Your task to perform on an android device: Search for the best selling coffee table on Crate & Barrel Image 0: 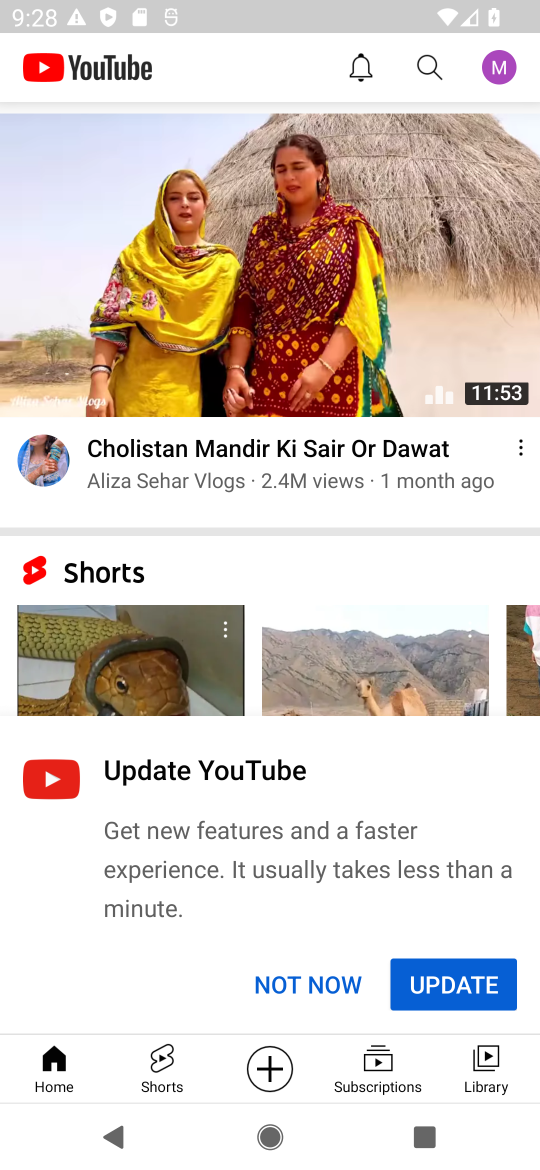
Step 0: press home button
Your task to perform on an android device: Search for the best selling coffee table on Crate & Barrel Image 1: 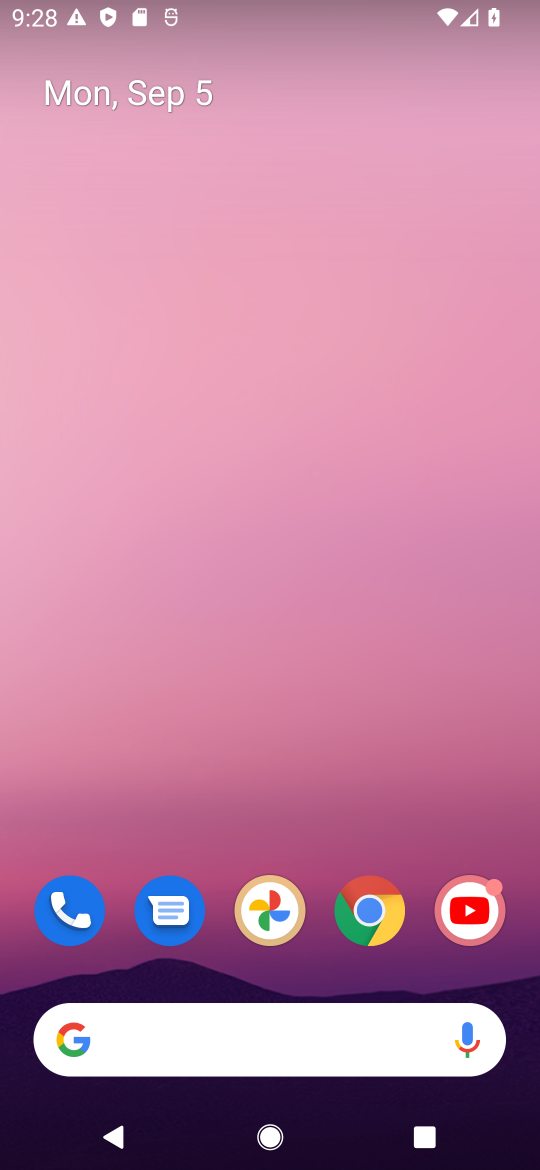
Step 1: click (398, 929)
Your task to perform on an android device: Search for the best selling coffee table on Crate & Barrel Image 2: 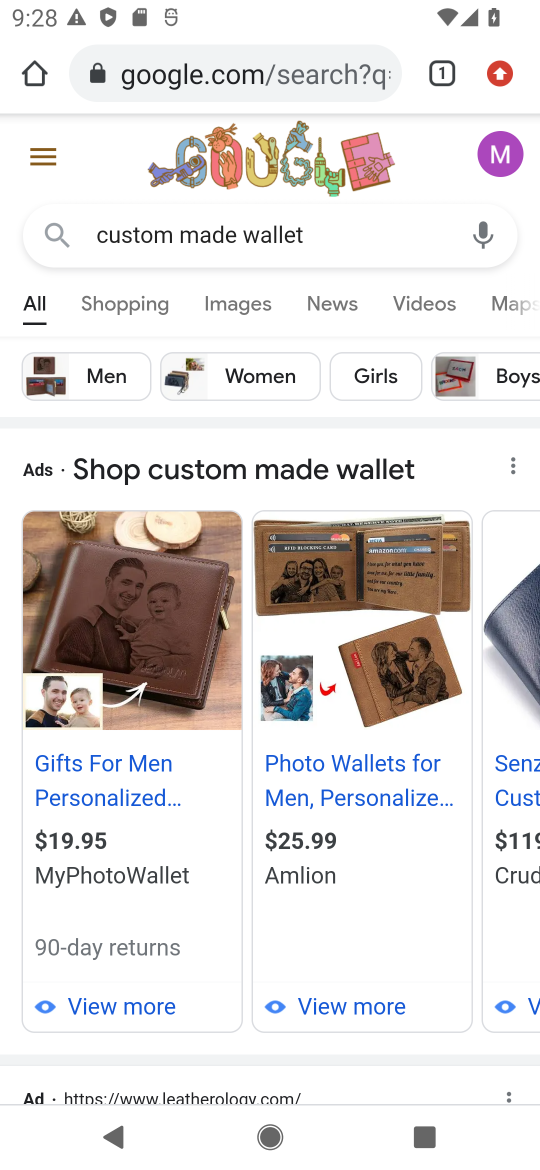
Step 2: click (322, 63)
Your task to perform on an android device: Search for the best selling coffee table on Crate & Barrel Image 3: 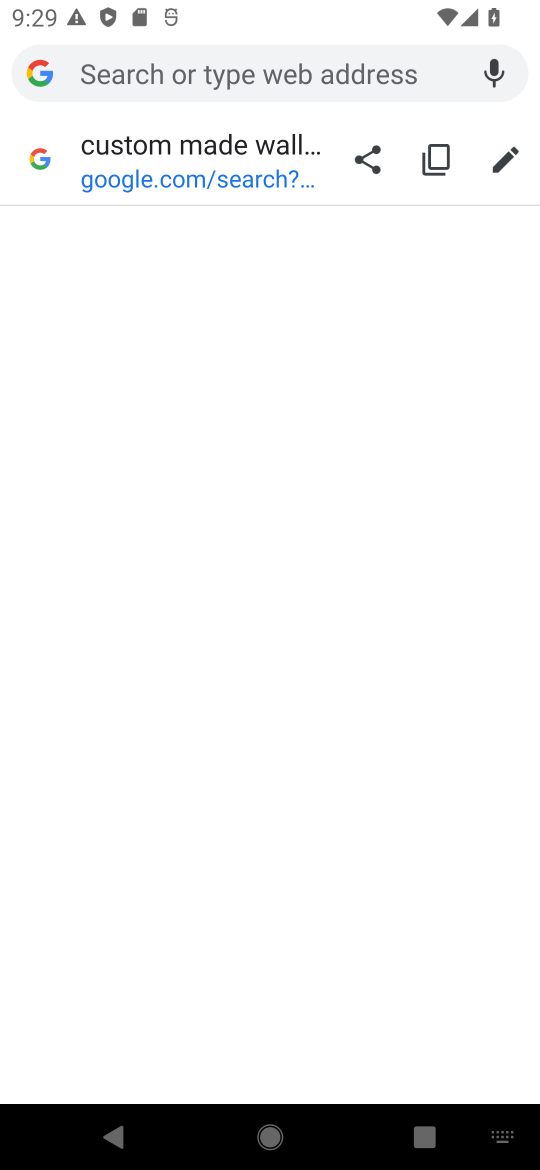
Step 3: type "crate and barrel"
Your task to perform on an android device: Search for the best selling coffee table on Crate & Barrel Image 4: 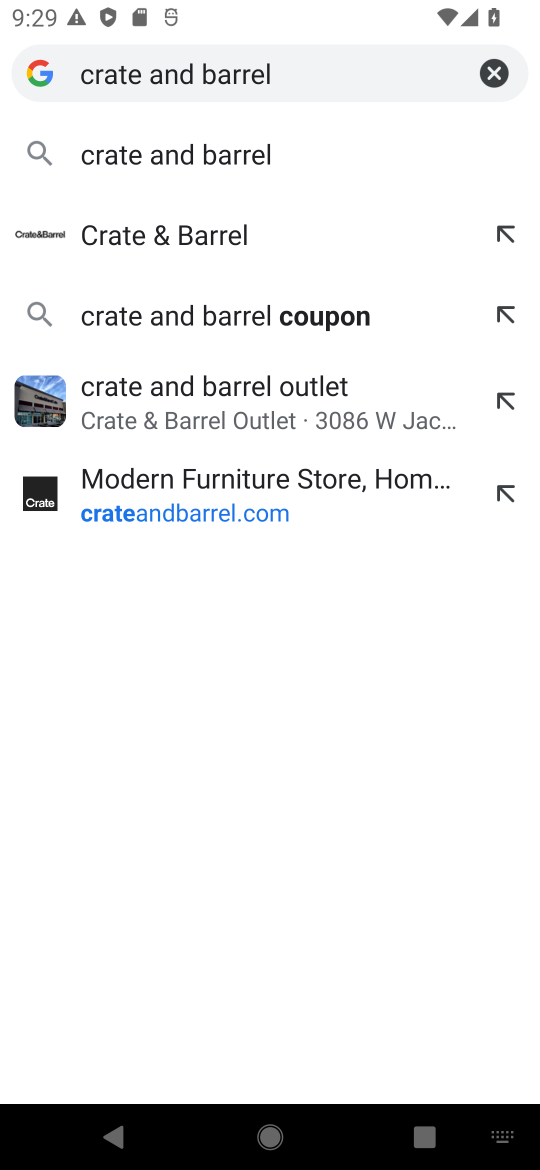
Step 4: click (272, 139)
Your task to perform on an android device: Search for the best selling coffee table on Crate & Barrel Image 5: 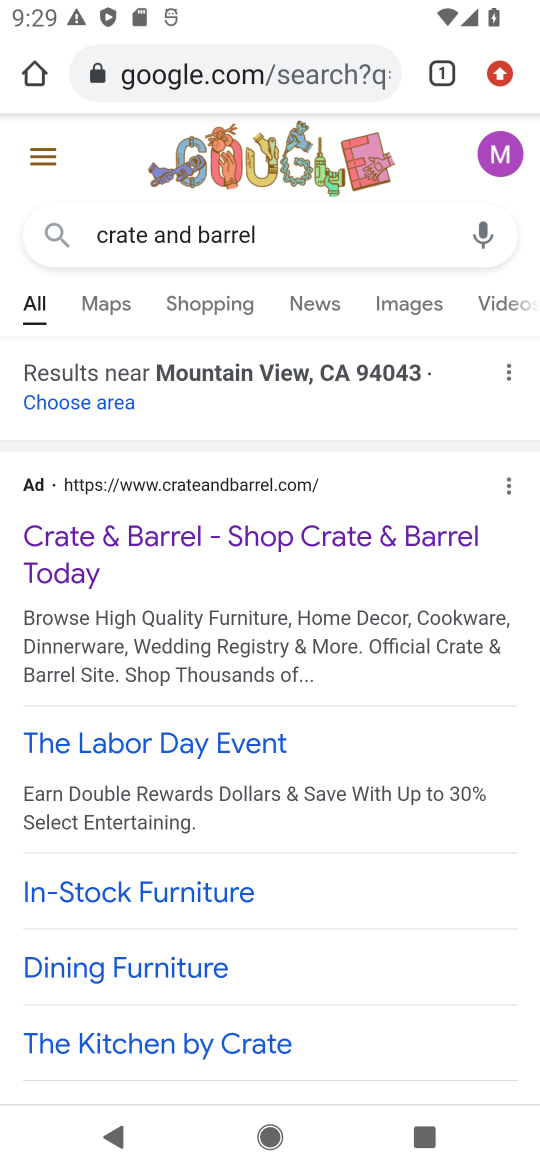
Step 5: click (306, 562)
Your task to perform on an android device: Search for the best selling coffee table on Crate & Barrel Image 6: 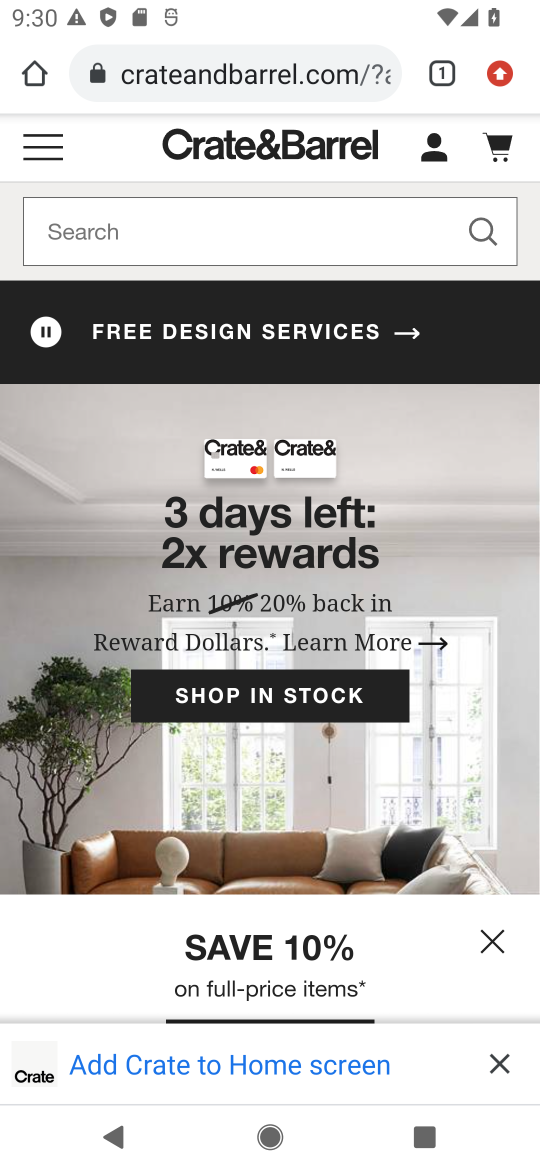
Step 6: click (313, 229)
Your task to perform on an android device: Search for the best selling coffee table on Crate & Barrel Image 7: 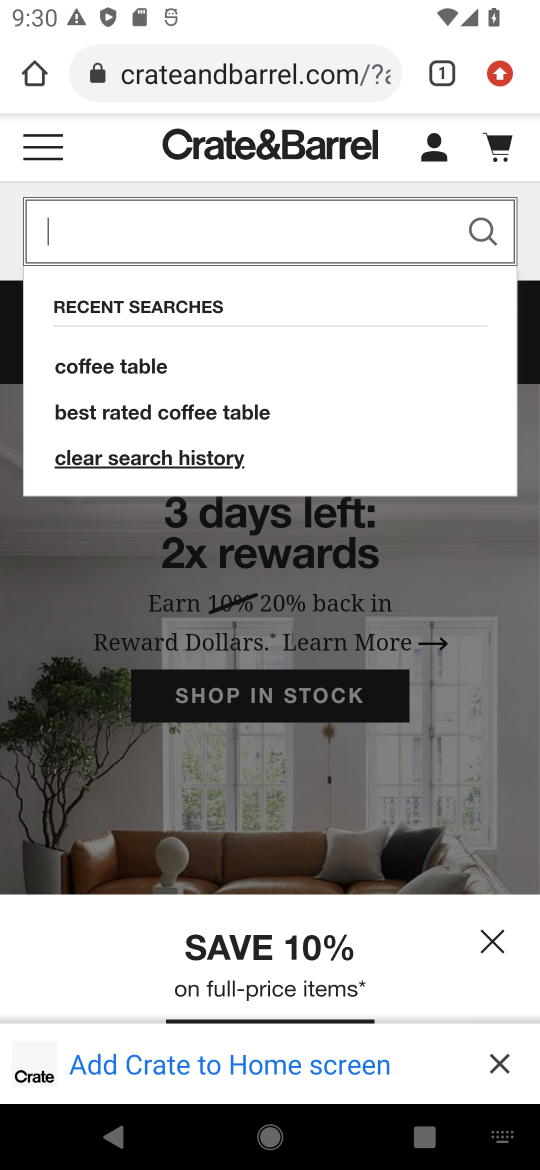
Step 7: click (272, 236)
Your task to perform on an android device: Search for the best selling coffee table on Crate & Barrel Image 8: 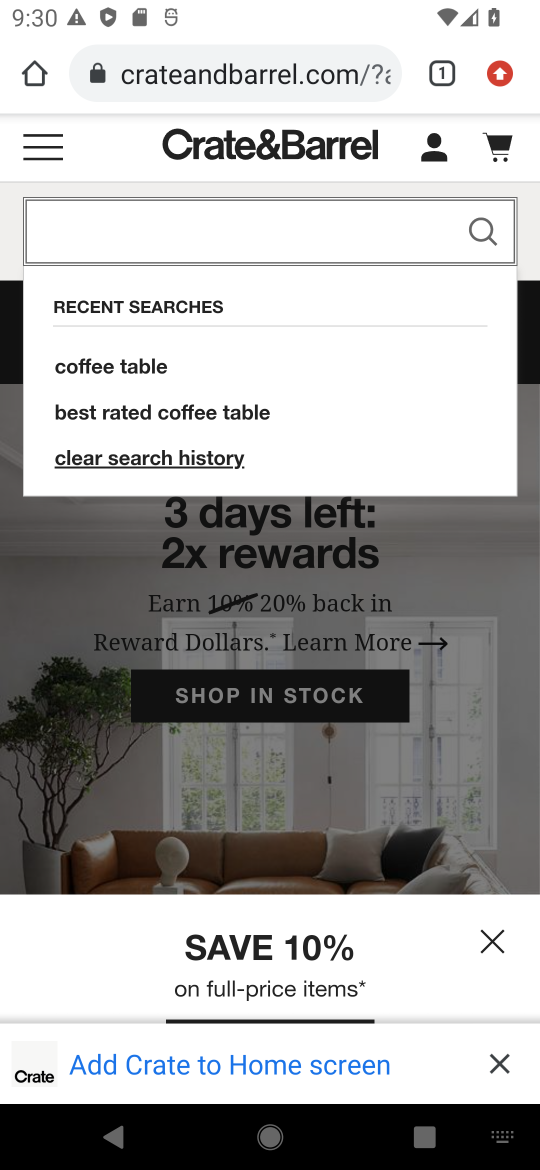
Step 8: type "best selling coffee table"
Your task to perform on an android device: Search for the best selling coffee table on Crate & Barrel Image 9: 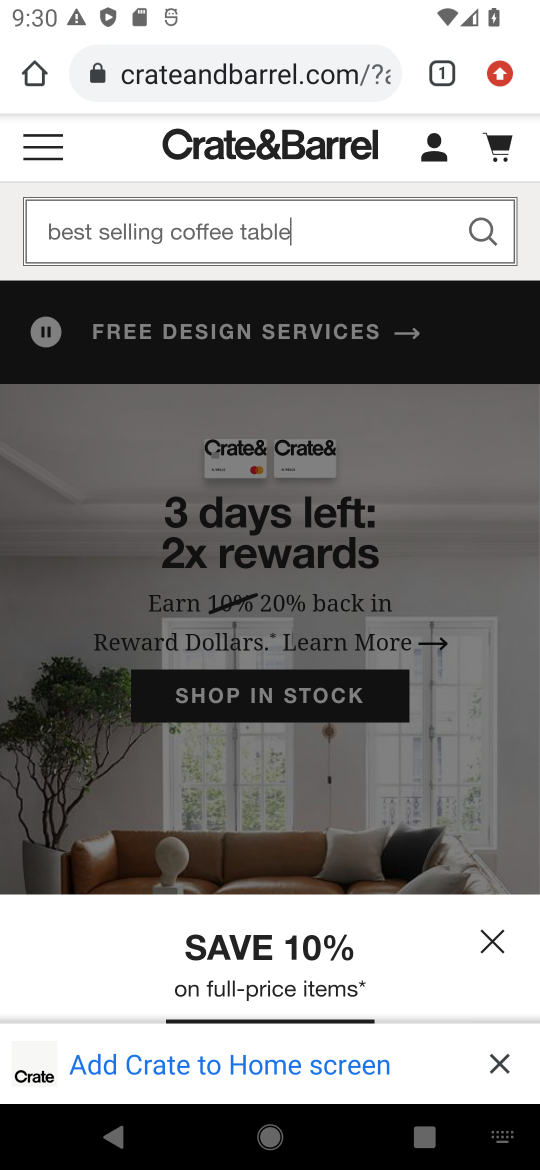
Step 9: press enter
Your task to perform on an android device: Search for the best selling coffee table on Crate & Barrel Image 10: 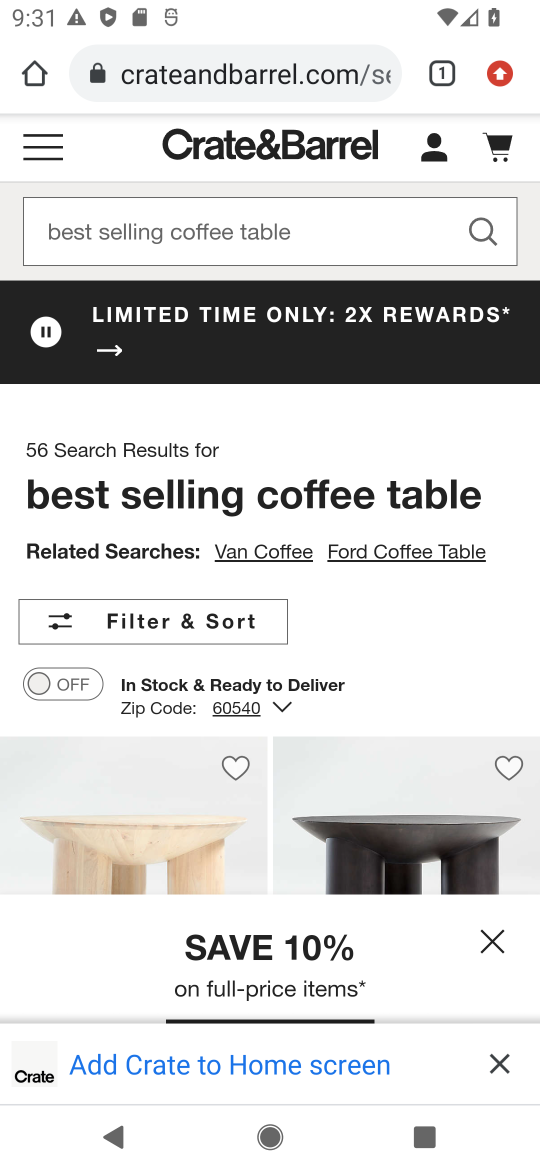
Step 10: task complete